Your task to perform on an android device: What's on my calendar today? Image 0: 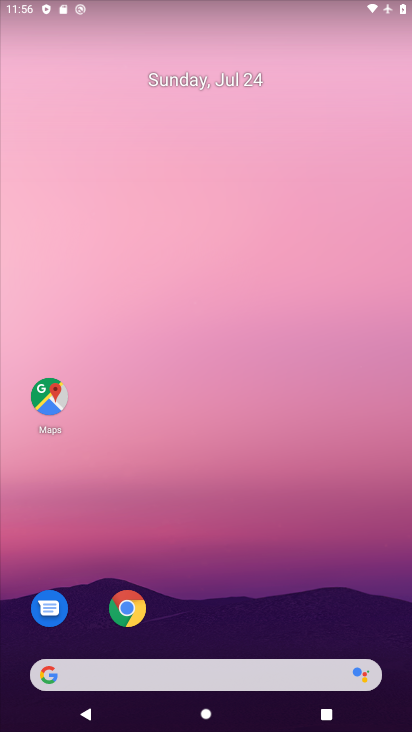
Step 0: drag from (227, 587) to (41, 78)
Your task to perform on an android device: What's on my calendar today? Image 1: 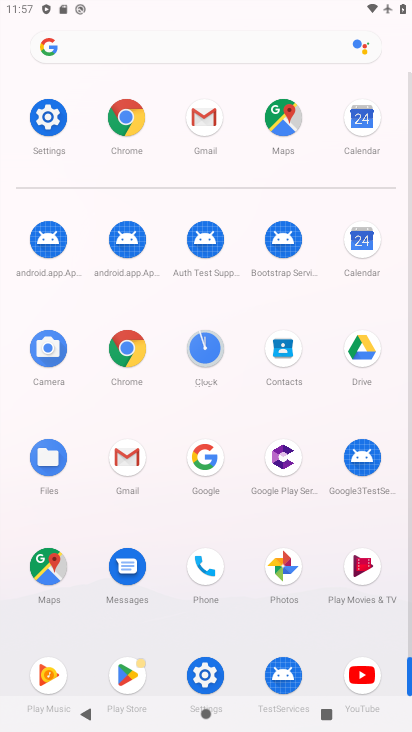
Step 1: click (379, 251)
Your task to perform on an android device: What's on my calendar today? Image 2: 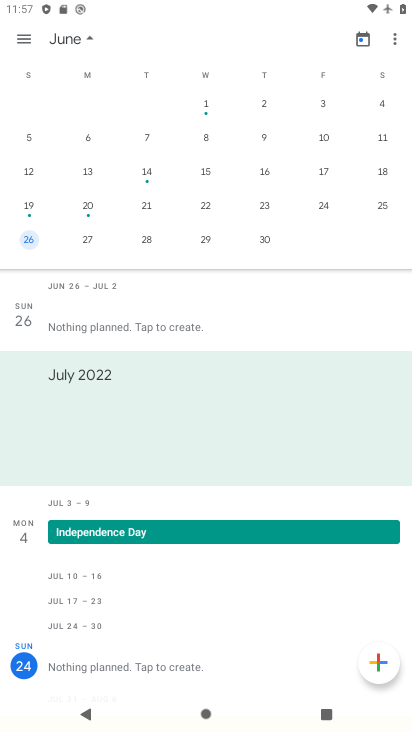
Step 2: click (382, 207)
Your task to perform on an android device: What's on my calendar today? Image 3: 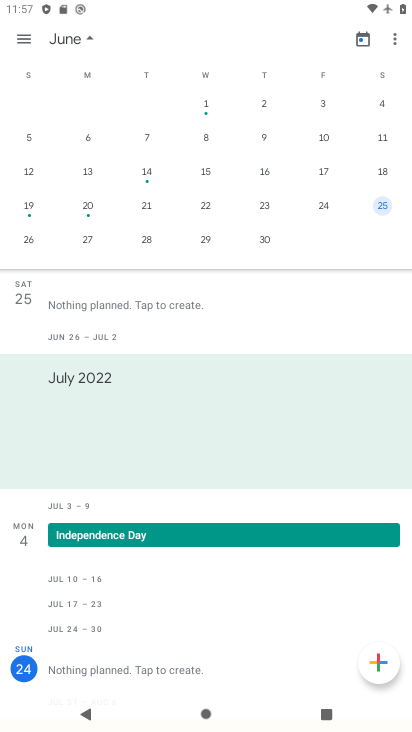
Step 3: drag from (345, 176) to (19, 198)
Your task to perform on an android device: What's on my calendar today? Image 4: 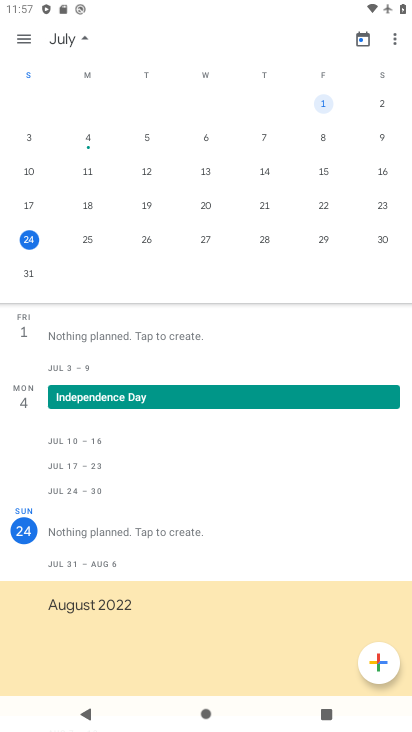
Step 4: click (25, 240)
Your task to perform on an android device: What's on my calendar today? Image 5: 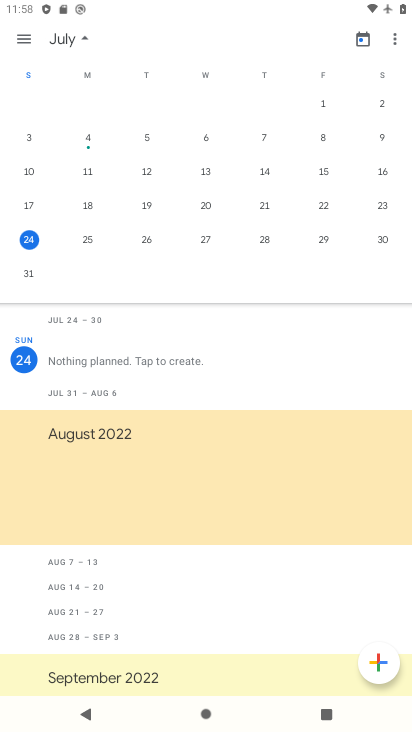
Step 5: task complete